Your task to perform on an android device: snooze an email in the gmail app Image 0: 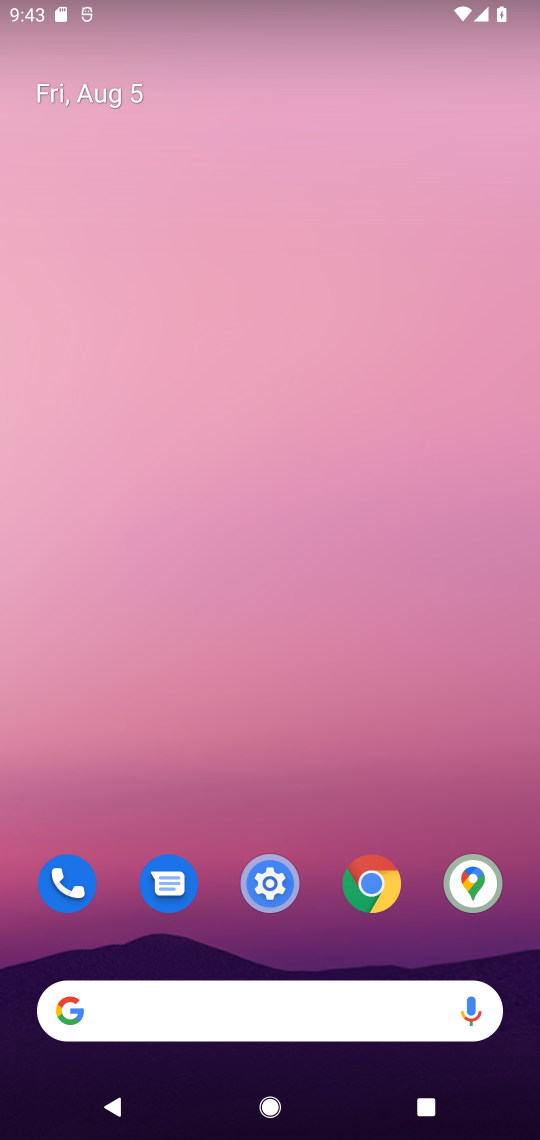
Step 0: drag from (255, 836) to (398, 81)
Your task to perform on an android device: snooze an email in the gmail app Image 1: 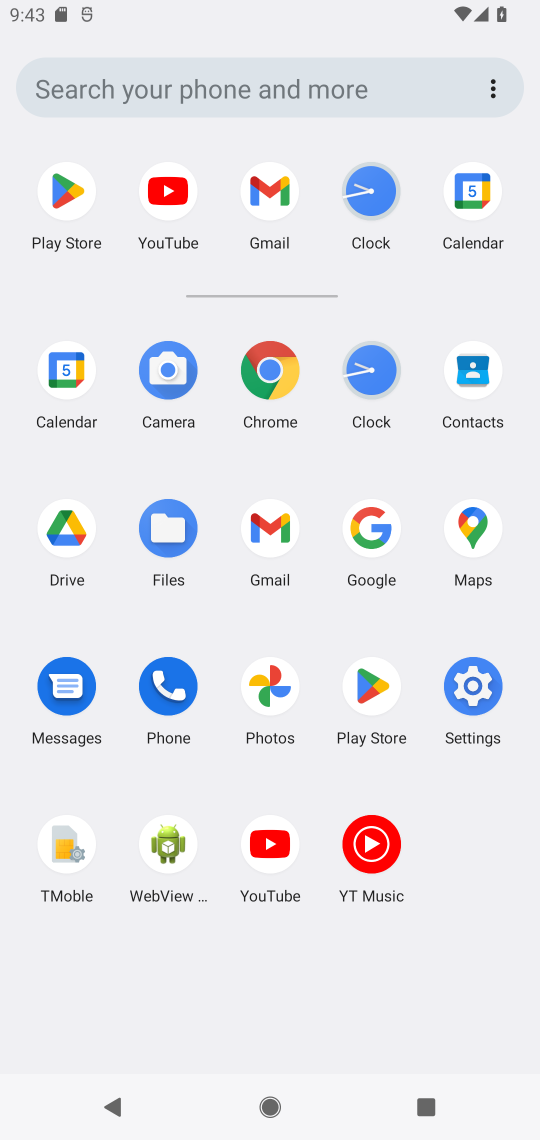
Step 1: click (262, 192)
Your task to perform on an android device: snooze an email in the gmail app Image 2: 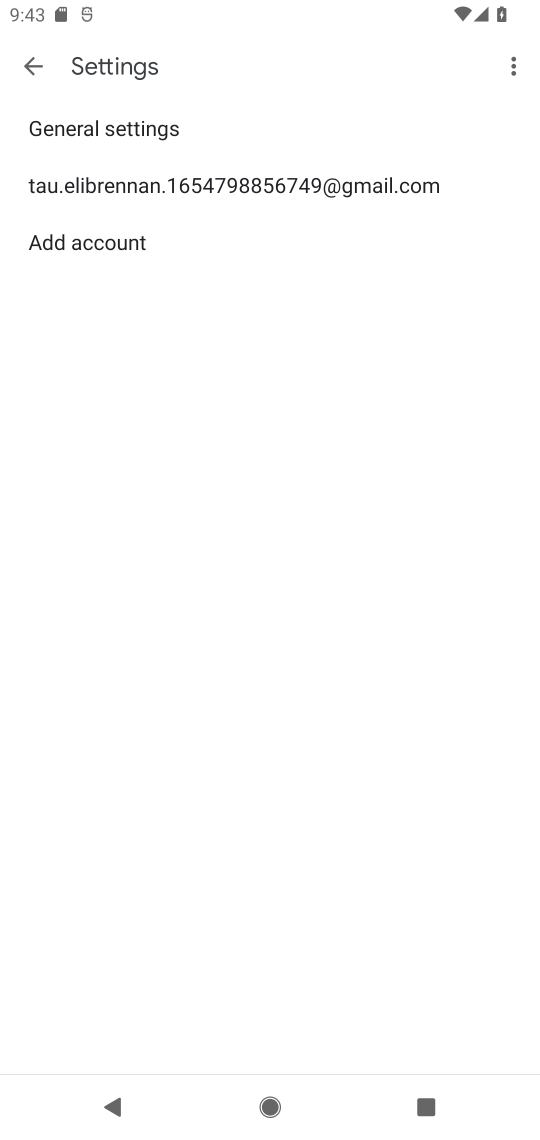
Step 2: click (40, 56)
Your task to perform on an android device: snooze an email in the gmail app Image 3: 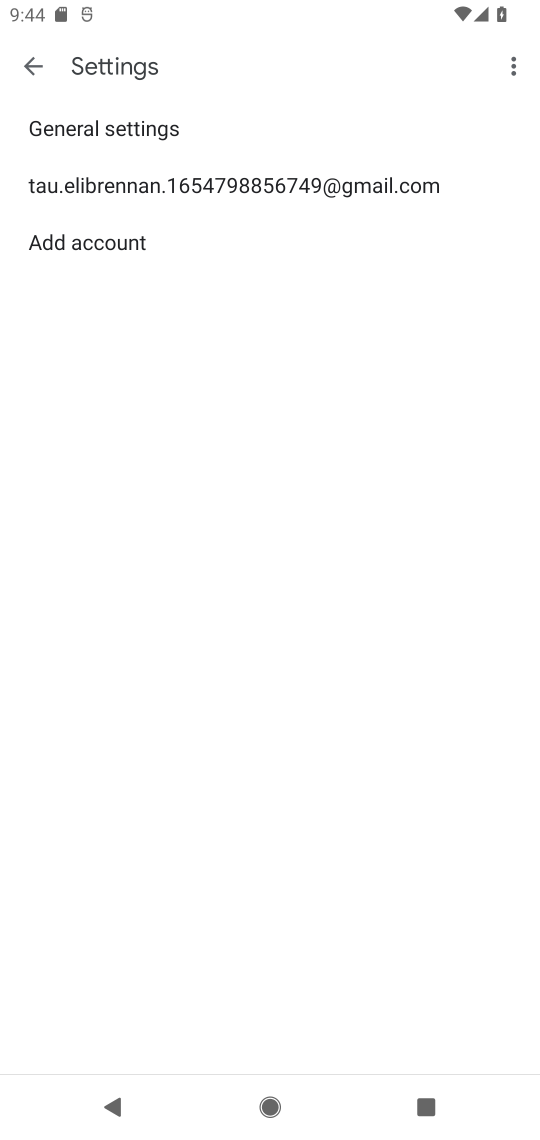
Step 3: click (35, 62)
Your task to perform on an android device: snooze an email in the gmail app Image 4: 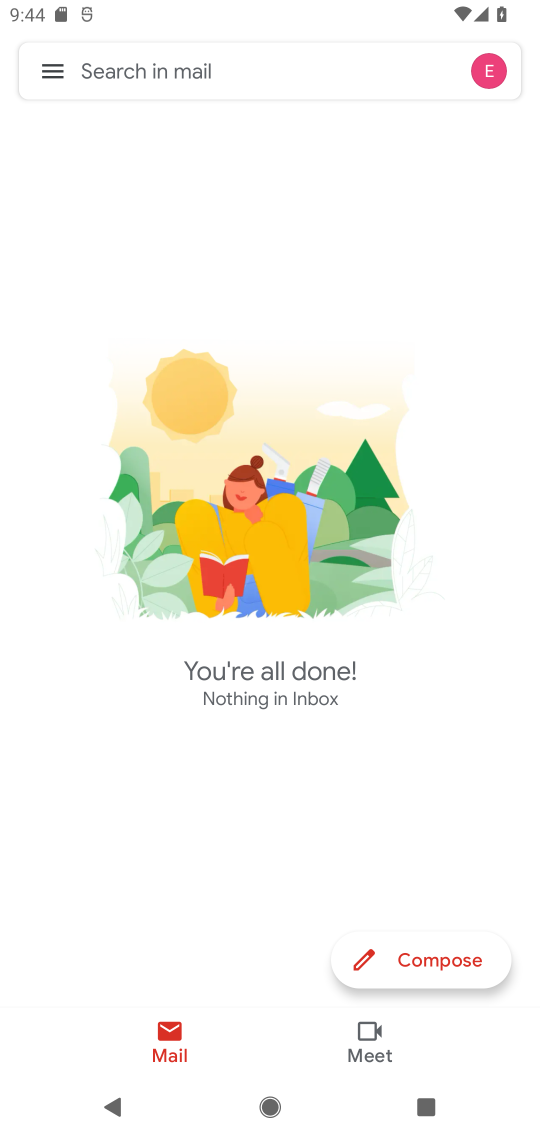
Step 4: click (60, 66)
Your task to perform on an android device: snooze an email in the gmail app Image 5: 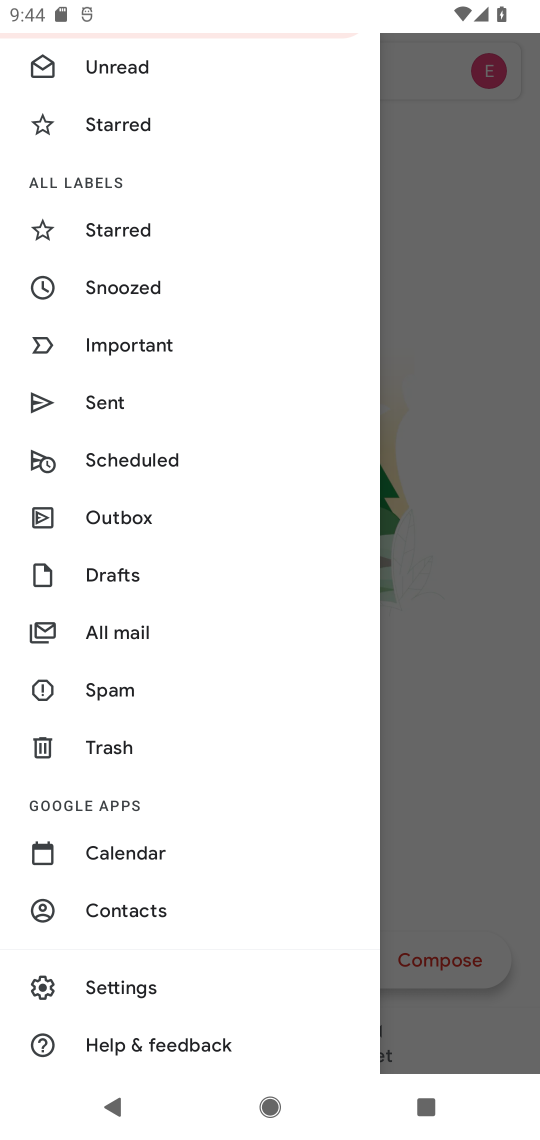
Step 5: click (119, 630)
Your task to perform on an android device: snooze an email in the gmail app Image 6: 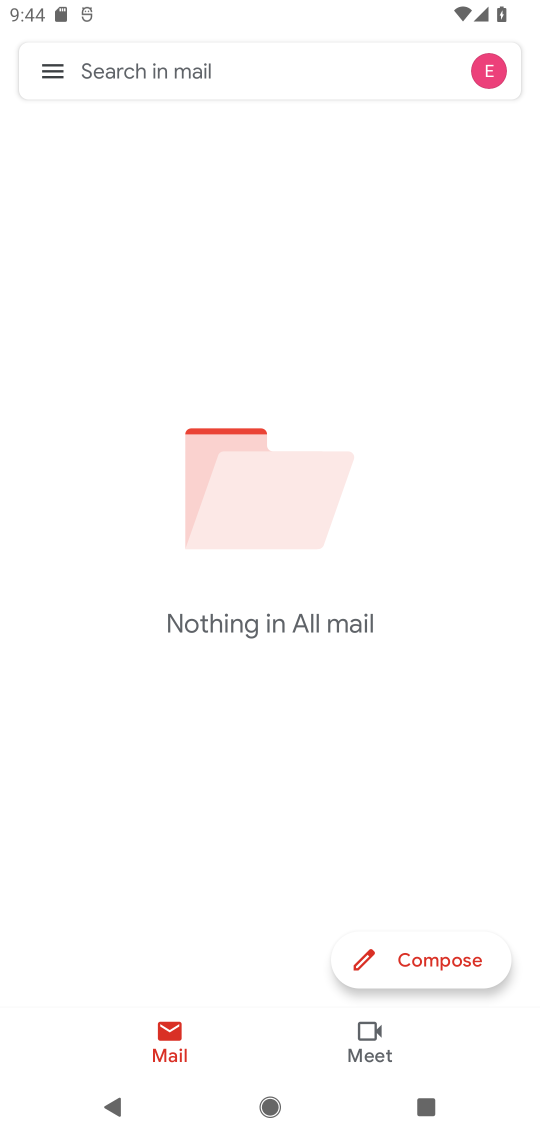
Step 6: task complete